Your task to perform on an android device: uninstall "Adobe Acrobat Reader: Edit PDF" Image 0: 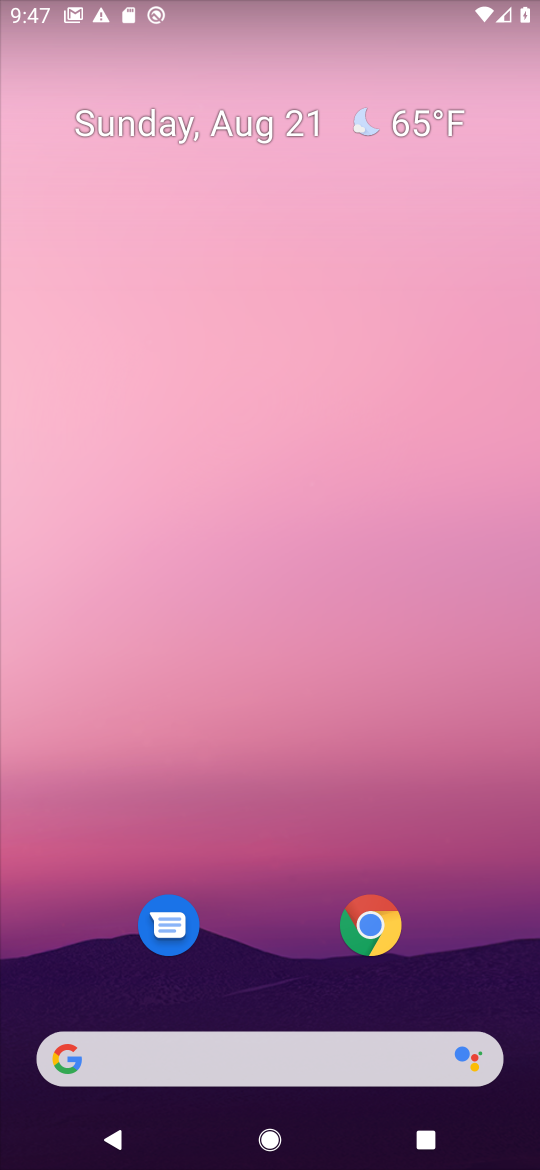
Step 0: drag from (267, 981) to (390, 4)
Your task to perform on an android device: uninstall "Adobe Acrobat Reader: Edit PDF" Image 1: 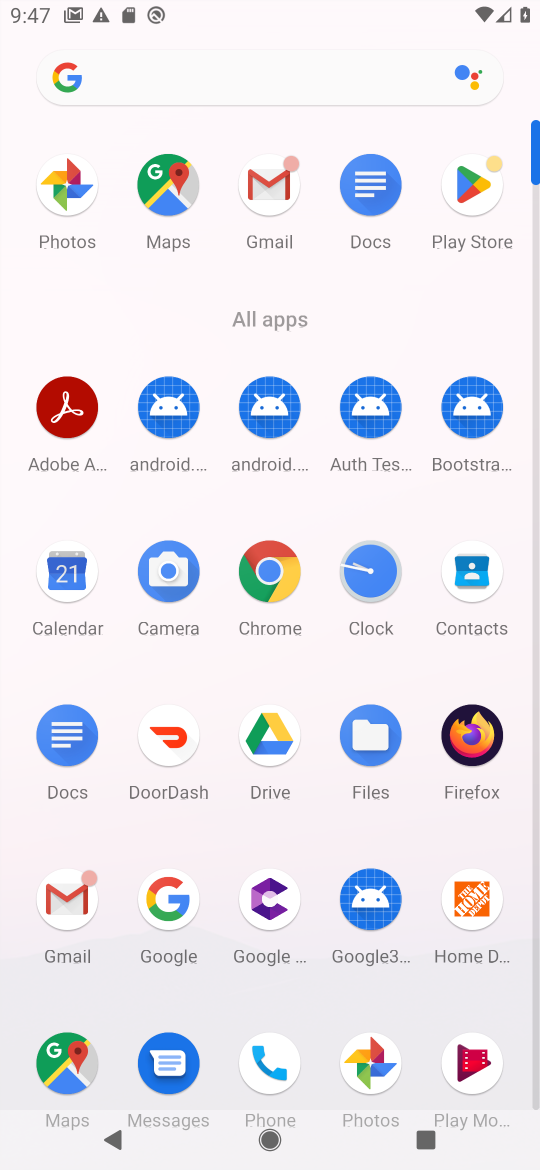
Step 1: click (458, 188)
Your task to perform on an android device: uninstall "Adobe Acrobat Reader: Edit PDF" Image 2: 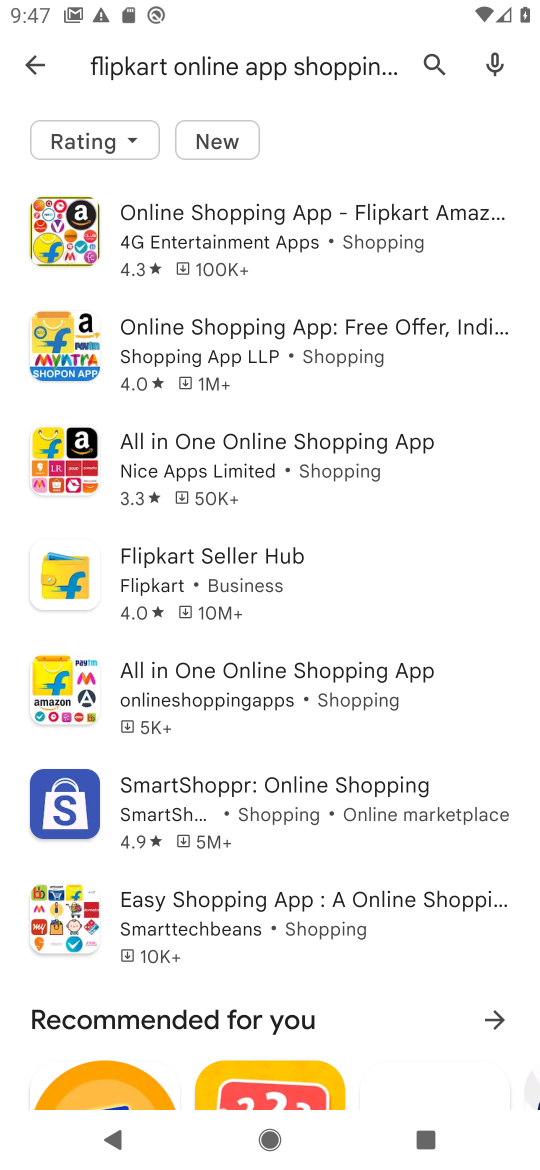
Step 2: click (443, 70)
Your task to perform on an android device: uninstall "Adobe Acrobat Reader: Edit PDF" Image 3: 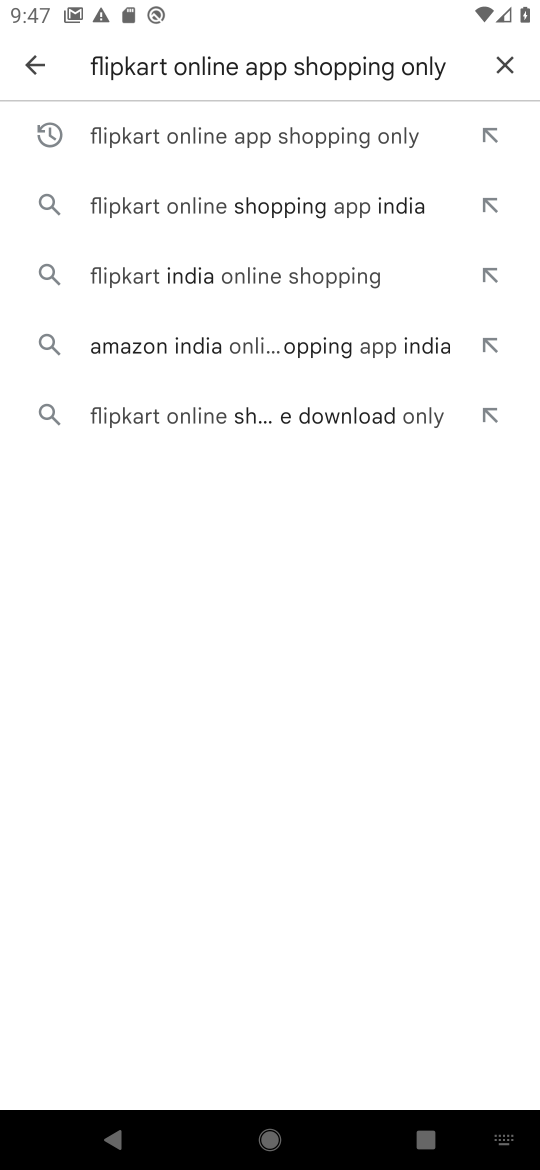
Step 3: click (501, 59)
Your task to perform on an android device: uninstall "Adobe Acrobat Reader: Edit PDF" Image 4: 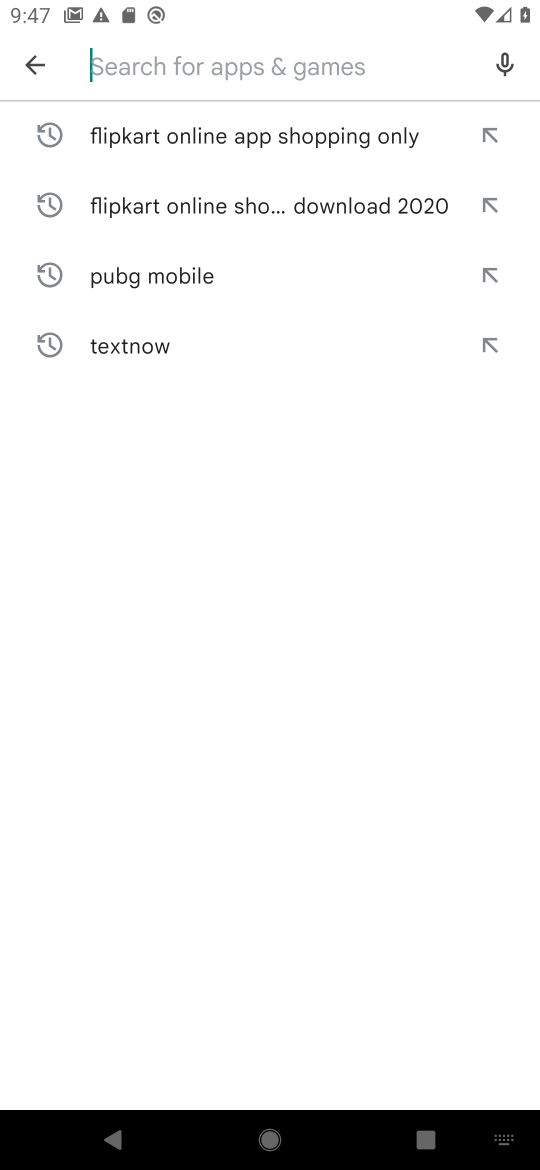
Step 4: click (154, 57)
Your task to perform on an android device: uninstall "Adobe Acrobat Reader: Edit PDF" Image 5: 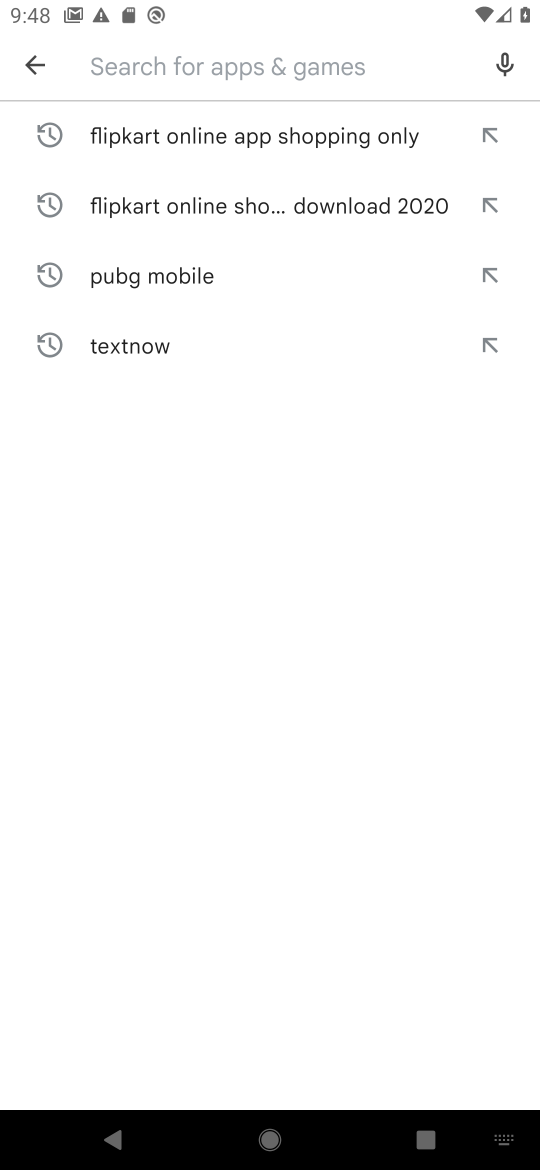
Step 5: type "Adobe Acrobat Reader"
Your task to perform on an android device: uninstall "Adobe Acrobat Reader: Edit PDF" Image 6: 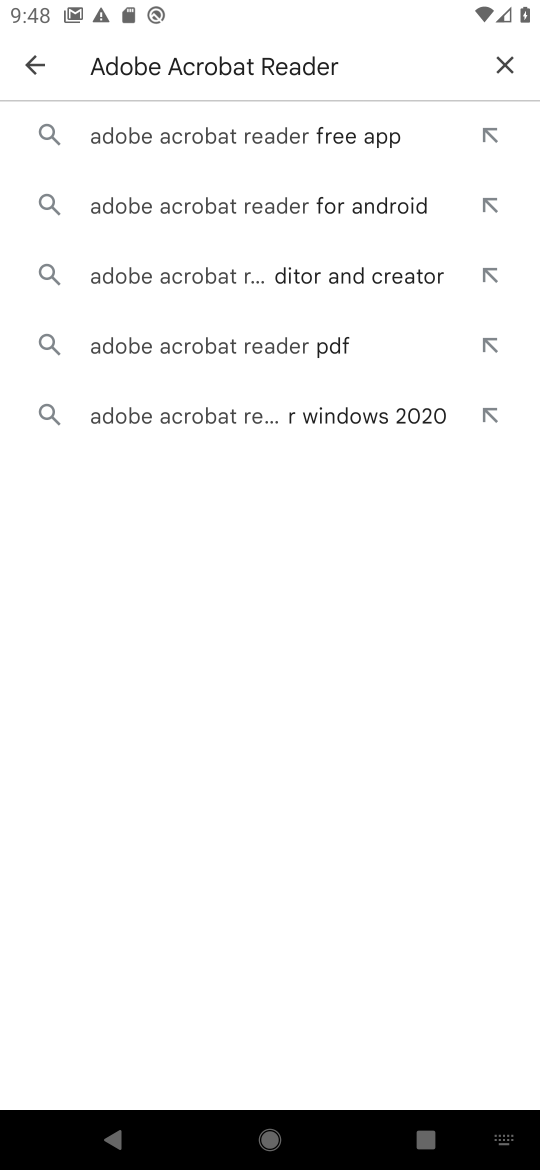
Step 6: click (202, 128)
Your task to perform on an android device: uninstall "Adobe Acrobat Reader: Edit PDF" Image 7: 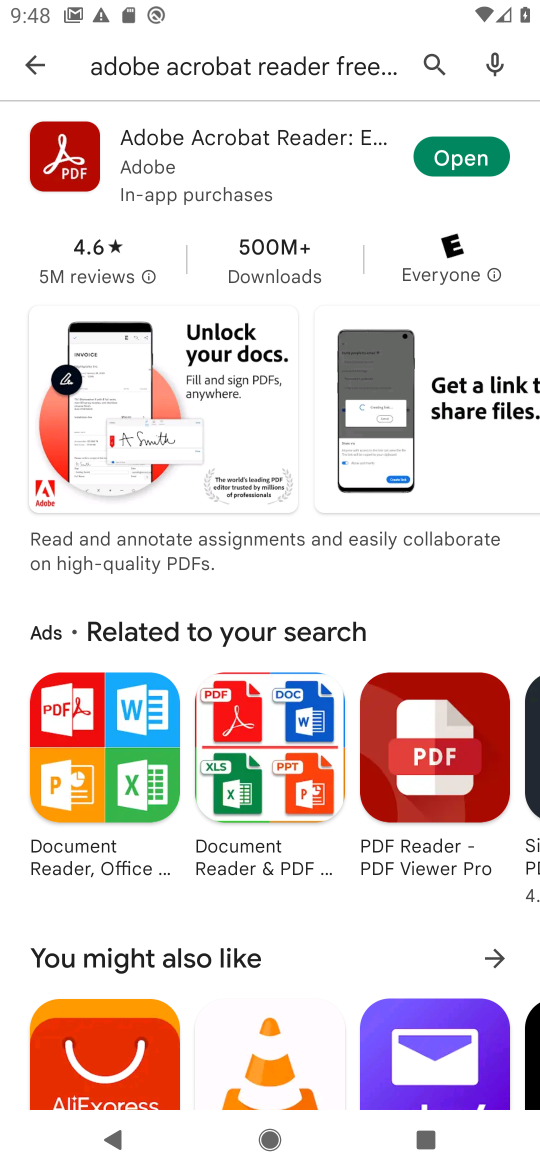
Step 7: click (211, 161)
Your task to perform on an android device: uninstall "Adobe Acrobat Reader: Edit PDF" Image 8: 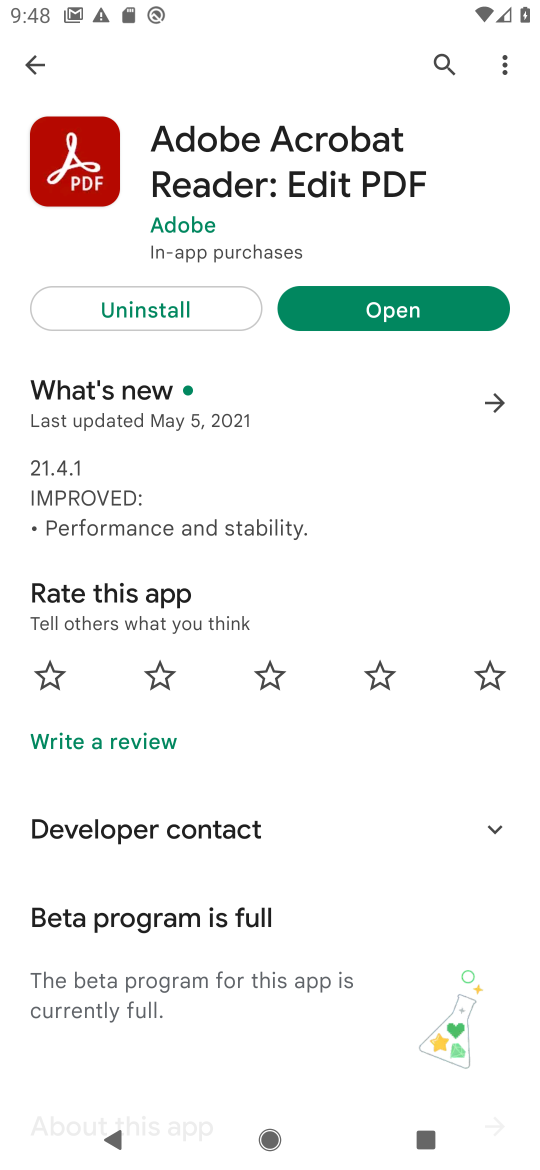
Step 8: click (159, 287)
Your task to perform on an android device: uninstall "Adobe Acrobat Reader: Edit PDF" Image 9: 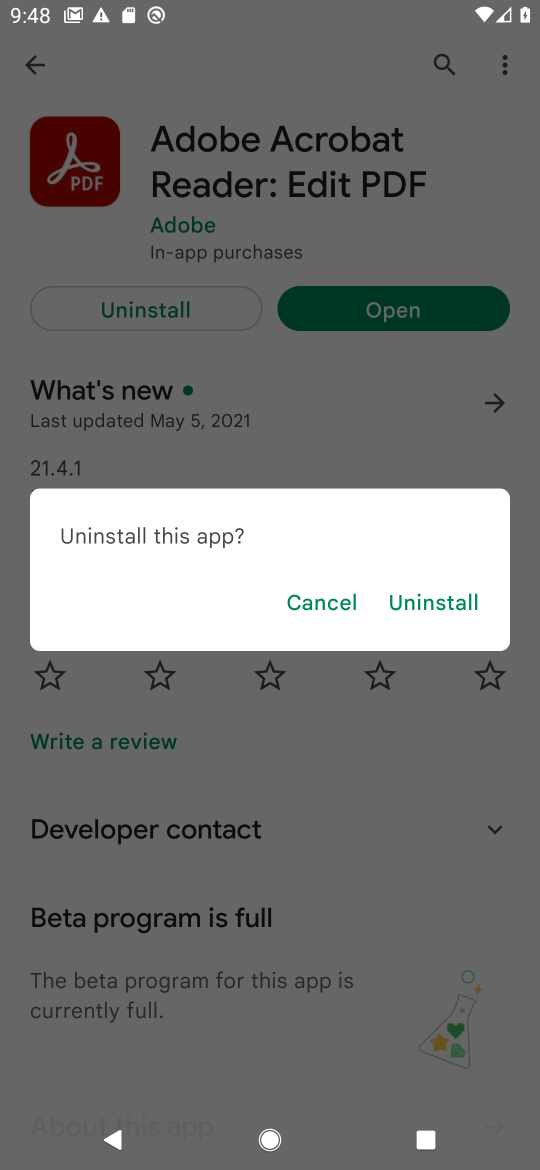
Step 9: click (422, 612)
Your task to perform on an android device: uninstall "Adobe Acrobat Reader: Edit PDF" Image 10: 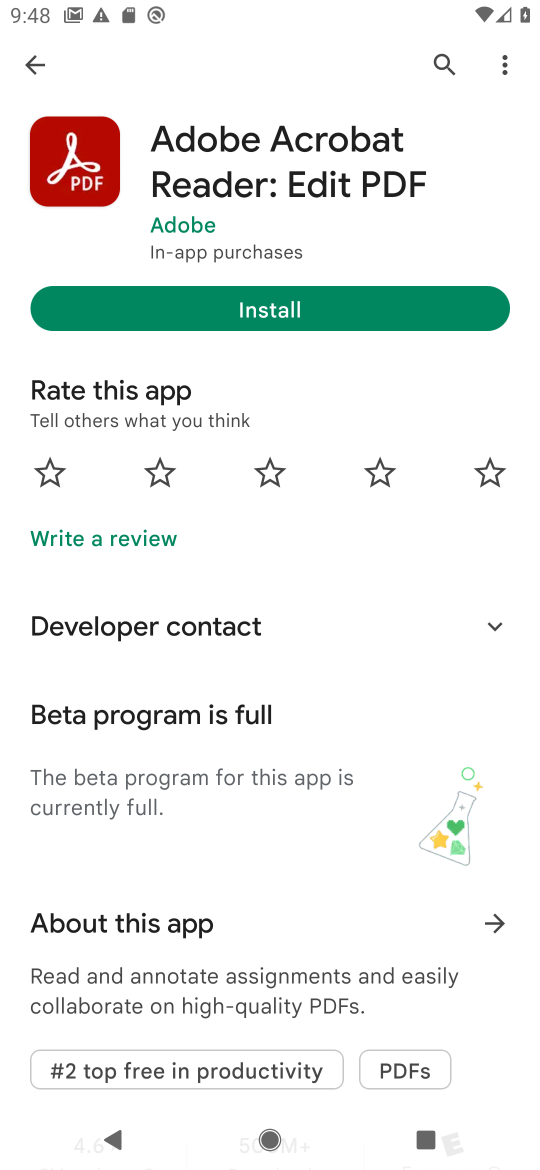
Step 10: task complete